Your task to perform on an android device: Open eBay Image 0: 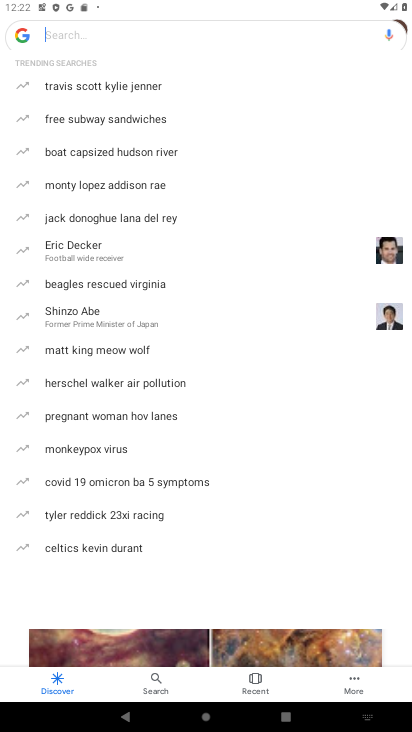
Step 0: press home button
Your task to perform on an android device: Open eBay Image 1: 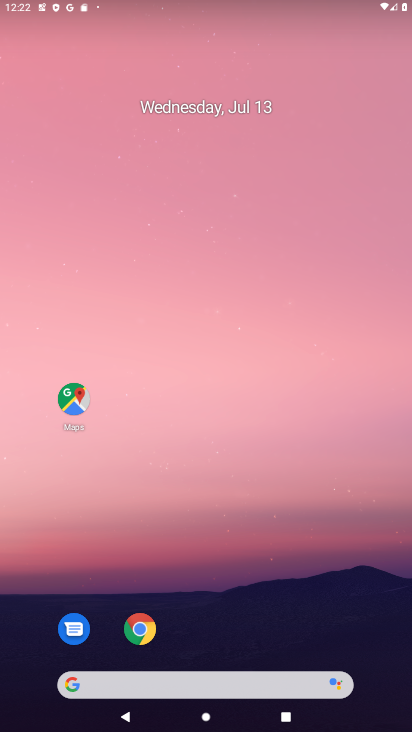
Step 1: drag from (231, 576) to (213, 323)
Your task to perform on an android device: Open eBay Image 2: 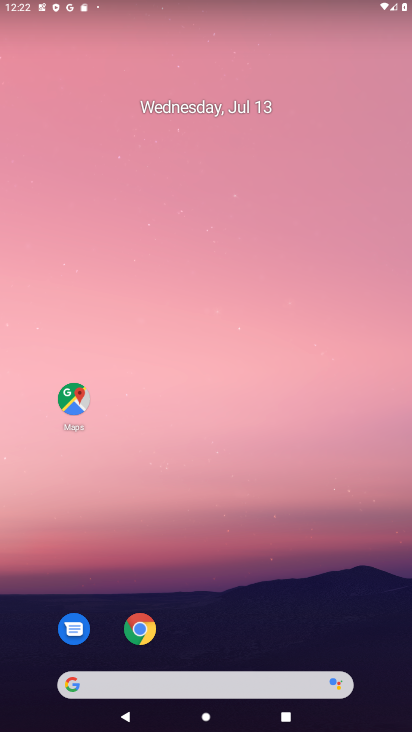
Step 2: drag from (213, 628) to (226, 289)
Your task to perform on an android device: Open eBay Image 3: 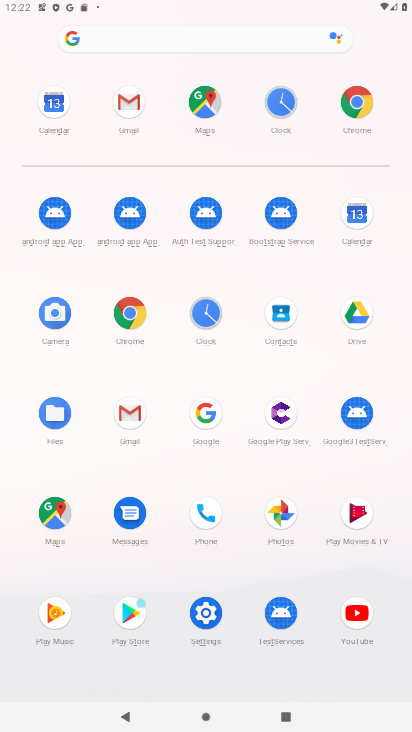
Step 3: click (362, 98)
Your task to perform on an android device: Open eBay Image 4: 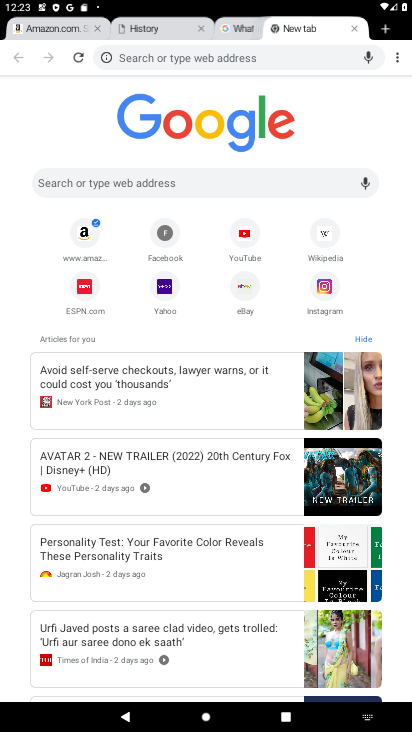
Step 4: click (231, 277)
Your task to perform on an android device: Open eBay Image 5: 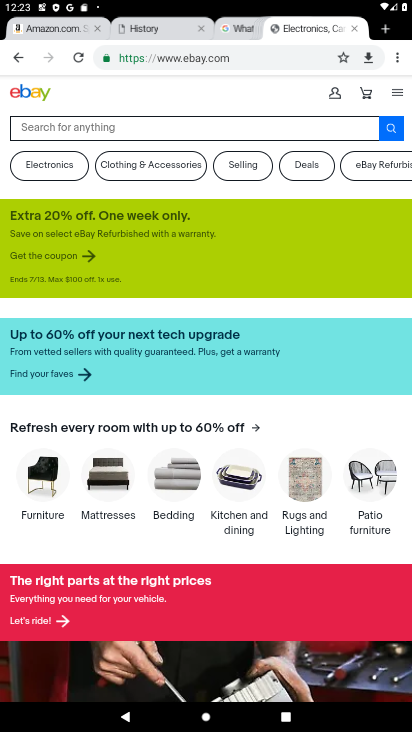
Step 5: task complete